Your task to perform on an android device: Open my contact list Image 0: 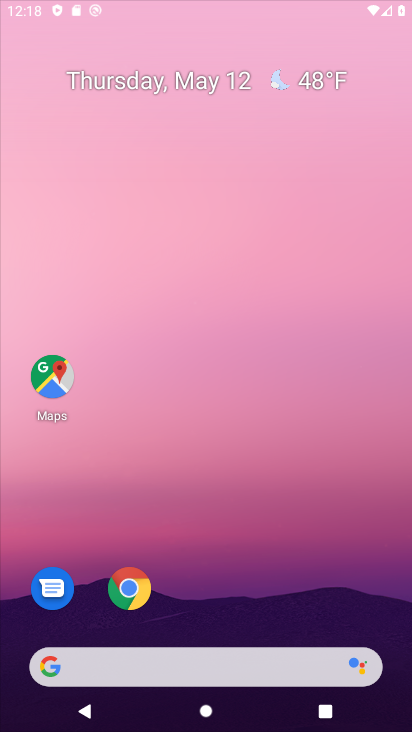
Step 0: drag from (312, 554) to (186, 114)
Your task to perform on an android device: Open my contact list Image 1: 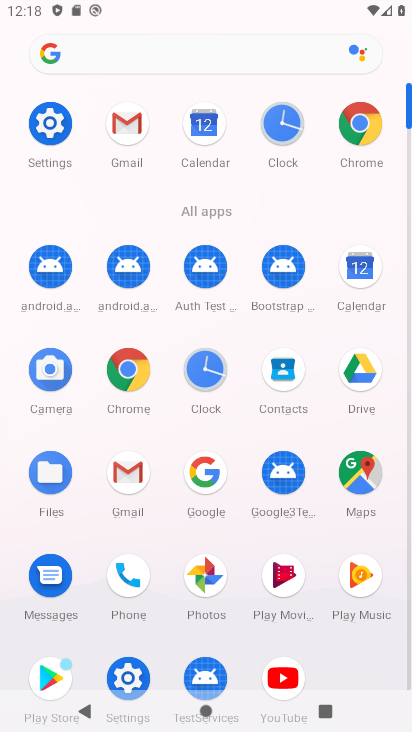
Step 1: click (276, 365)
Your task to perform on an android device: Open my contact list Image 2: 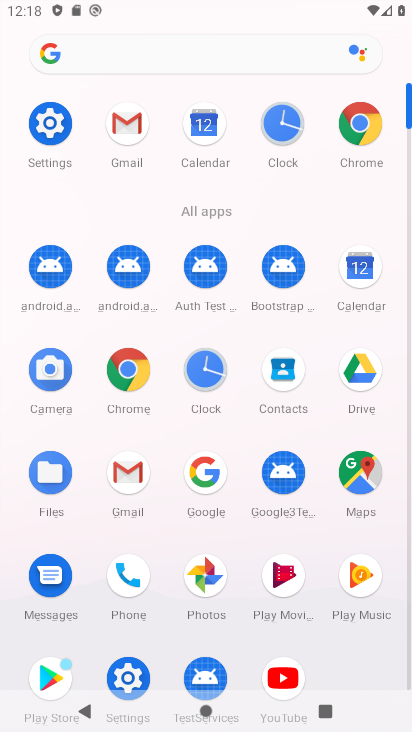
Step 2: click (277, 364)
Your task to perform on an android device: Open my contact list Image 3: 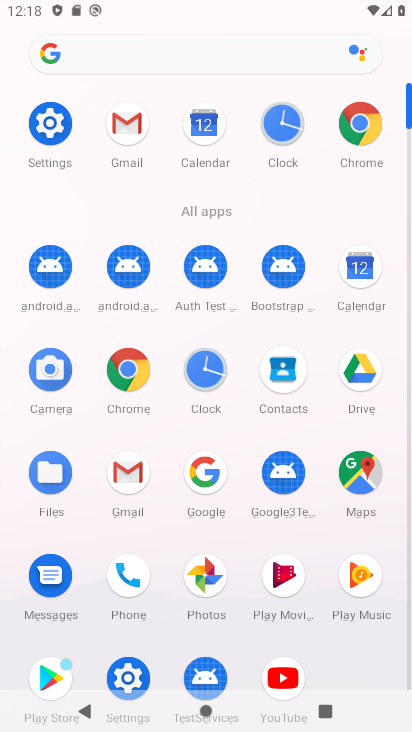
Step 3: click (275, 363)
Your task to perform on an android device: Open my contact list Image 4: 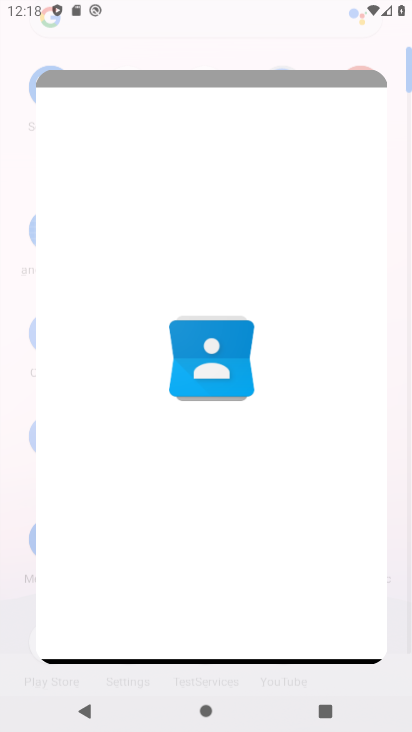
Step 4: click (275, 363)
Your task to perform on an android device: Open my contact list Image 5: 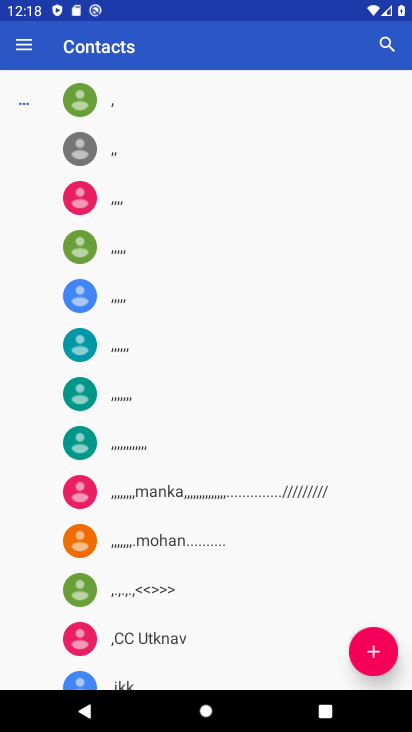
Step 5: task complete